Your task to perform on an android device: turn off data saver in the chrome app Image 0: 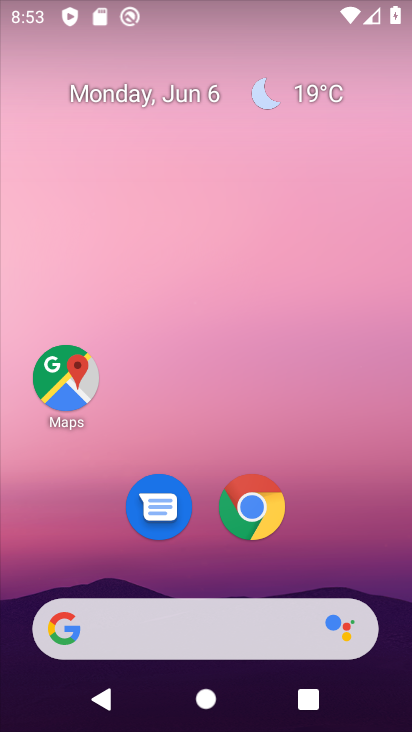
Step 0: click (257, 504)
Your task to perform on an android device: turn off data saver in the chrome app Image 1: 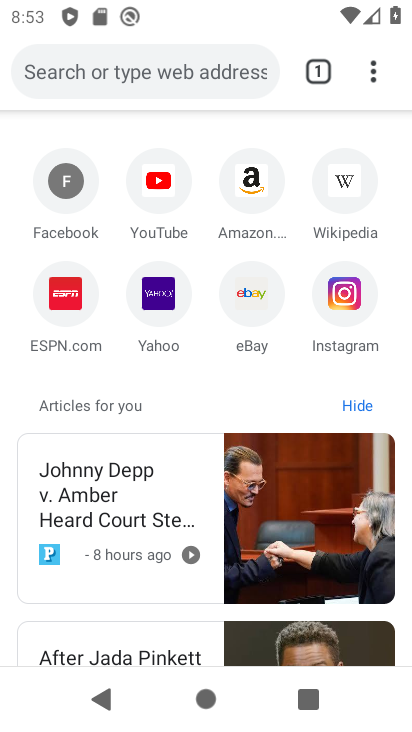
Step 1: click (371, 65)
Your task to perform on an android device: turn off data saver in the chrome app Image 2: 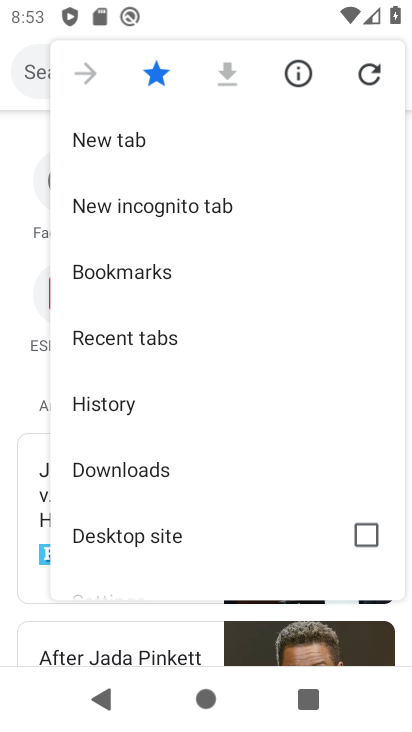
Step 2: drag from (160, 489) to (179, 239)
Your task to perform on an android device: turn off data saver in the chrome app Image 3: 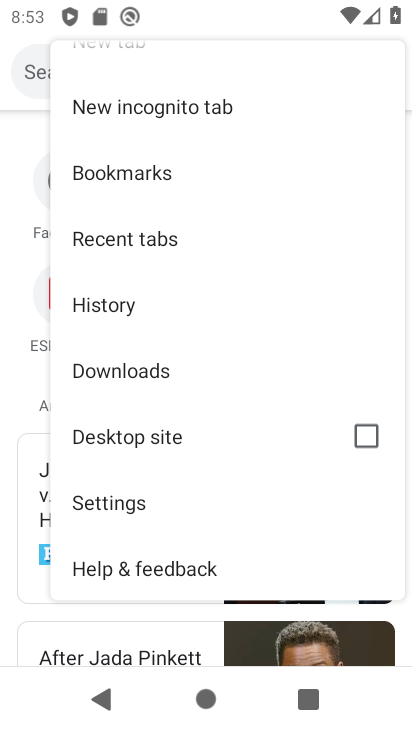
Step 3: click (132, 516)
Your task to perform on an android device: turn off data saver in the chrome app Image 4: 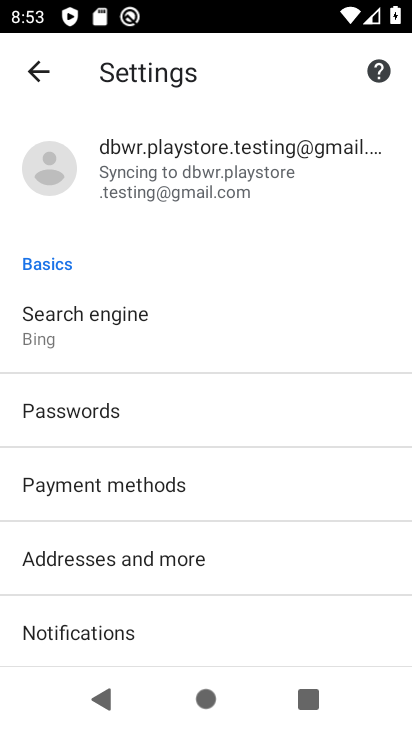
Step 4: drag from (153, 622) to (243, 324)
Your task to perform on an android device: turn off data saver in the chrome app Image 5: 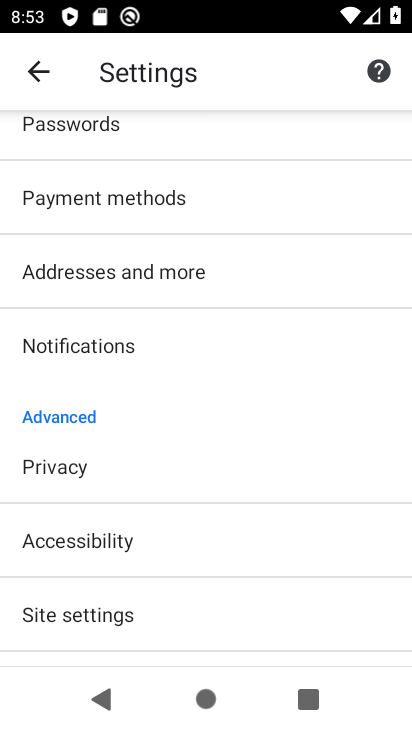
Step 5: drag from (136, 619) to (207, 330)
Your task to perform on an android device: turn off data saver in the chrome app Image 6: 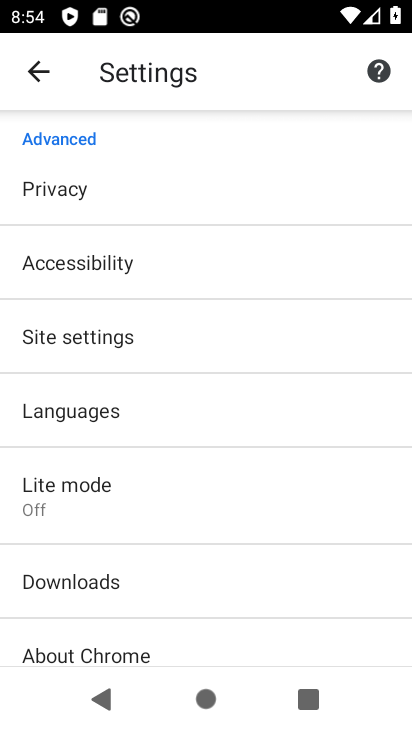
Step 6: click (161, 485)
Your task to perform on an android device: turn off data saver in the chrome app Image 7: 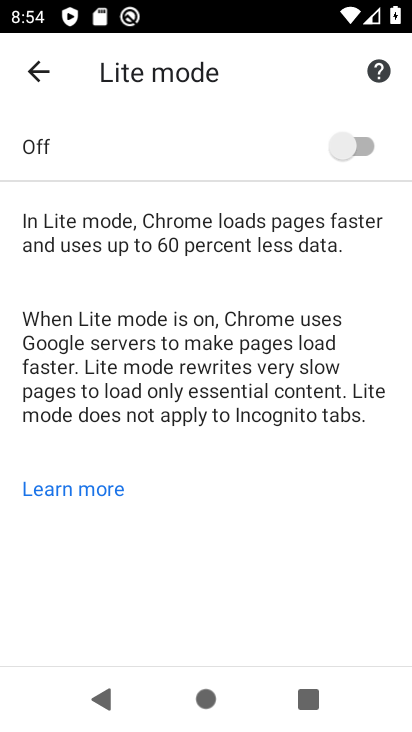
Step 7: task complete